Your task to perform on an android device: Play the last video I watched on Youtube Image 0: 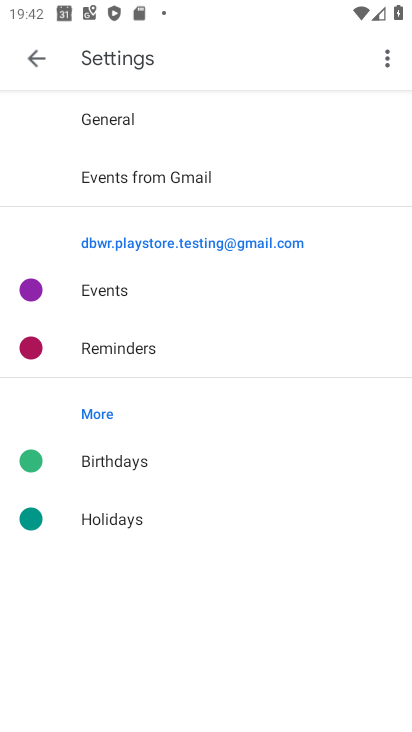
Step 0: press back button
Your task to perform on an android device: Play the last video I watched on Youtube Image 1: 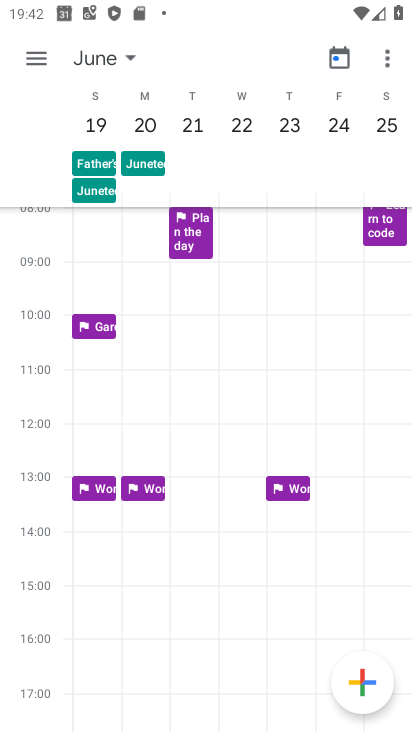
Step 1: press back button
Your task to perform on an android device: Play the last video I watched on Youtube Image 2: 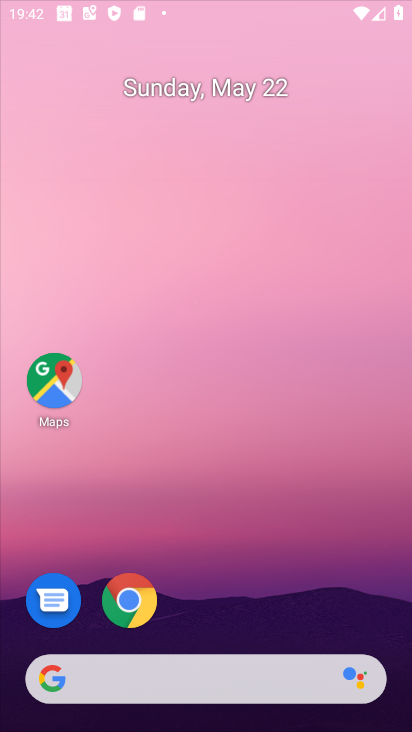
Step 2: press home button
Your task to perform on an android device: Play the last video I watched on Youtube Image 3: 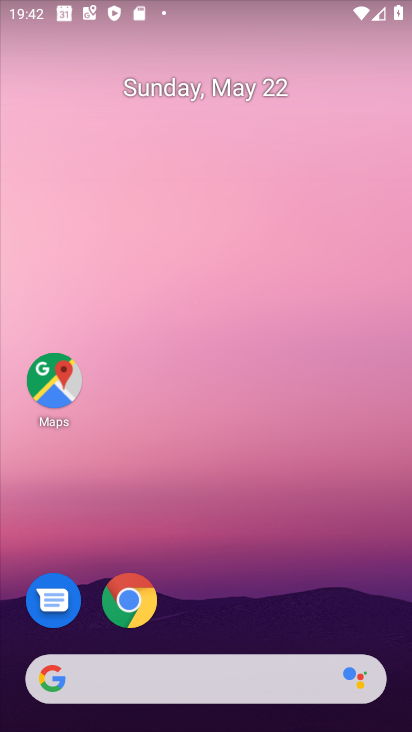
Step 3: drag from (266, 585) to (252, 34)
Your task to perform on an android device: Play the last video I watched on Youtube Image 4: 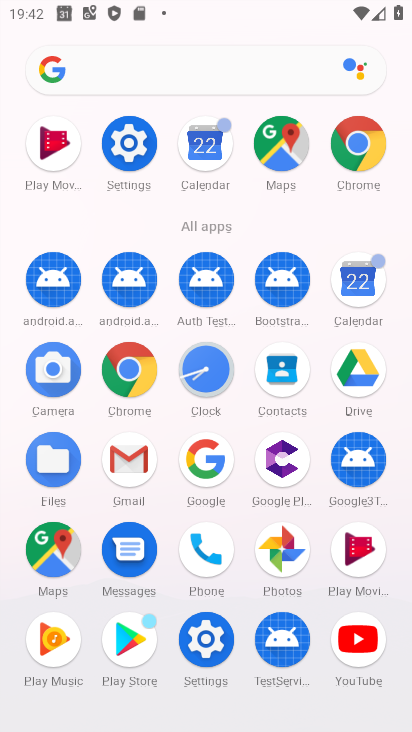
Step 4: click (355, 635)
Your task to perform on an android device: Play the last video I watched on Youtube Image 5: 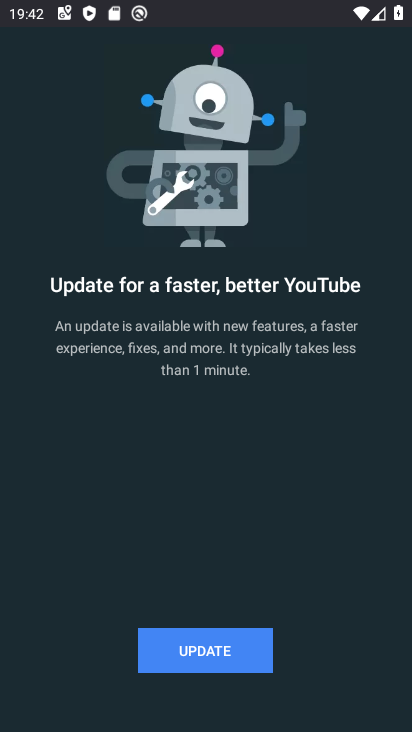
Step 5: click (206, 644)
Your task to perform on an android device: Play the last video I watched on Youtube Image 6: 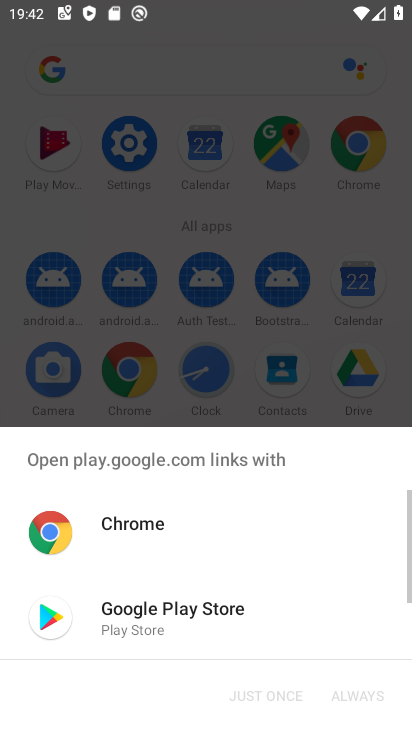
Step 6: click (126, 634)
Your task to perform on an android device: Play the last video I watched on Youtube Image 7: 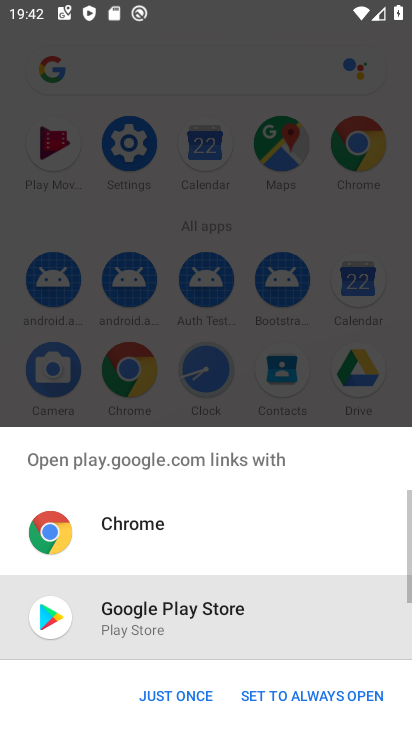
Step 7: click (154, 697)
Your task to perform on an android device: Play the last video I watched on Youtube Image 8: 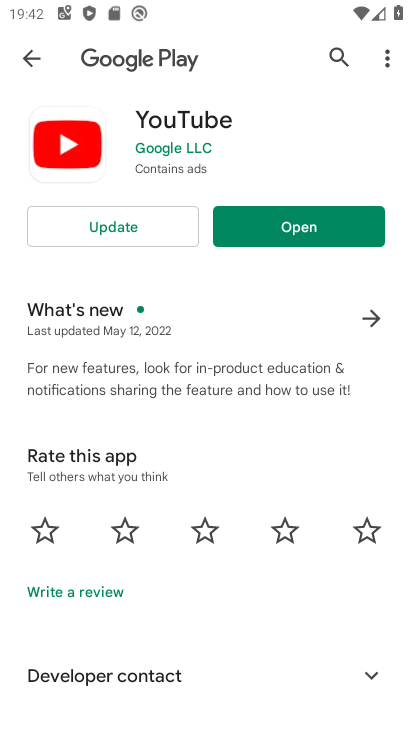
Step 8: click (162, 236)
Your task to perform on an android device: Play the last video I watched on Youtube Image 9: 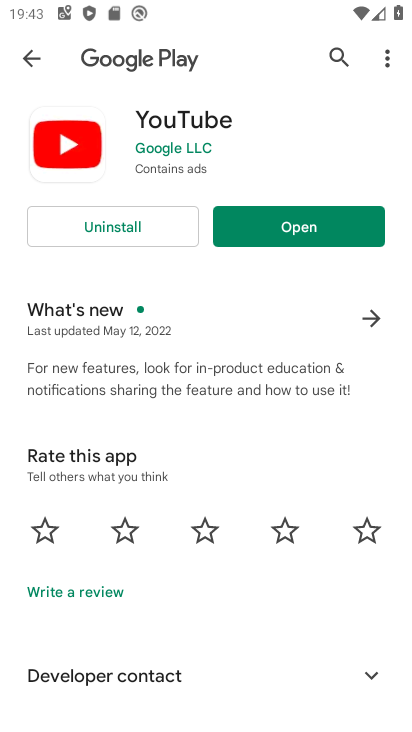
Step 9: click (293, 233)
Your task to perform on an android device: Play the last video I watched on Youtube Image 10: 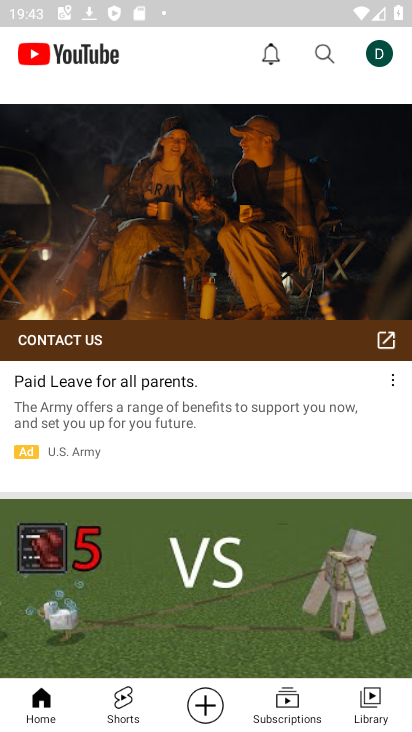
Step 10: click (384, 694)
Your task to perform on an android device: Play the last video I watched on Youtube Image 11: 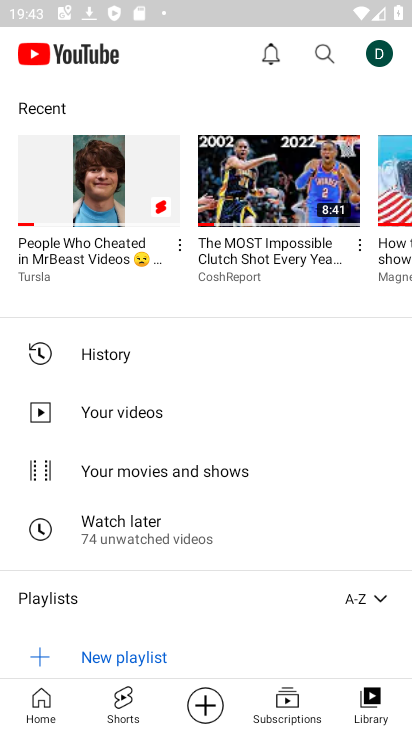
Step 11: click (105, 175)
Your task to perform on an android device: Play the last video I watched on Youtube Image 12: 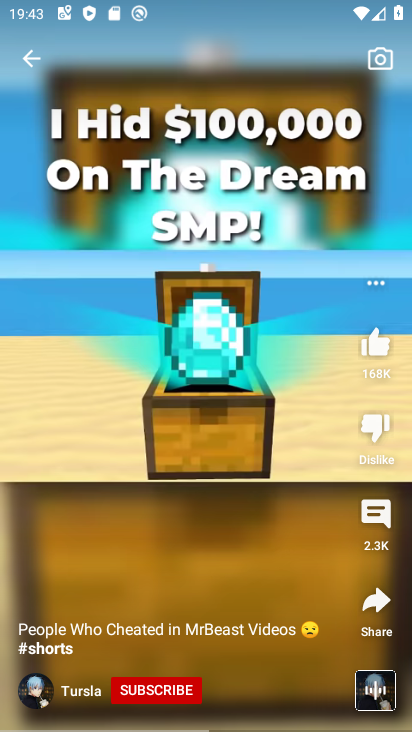
Step 12: task complete